Your task to perform on an android device: Open Youtube and go to "Your channel" Image 0: 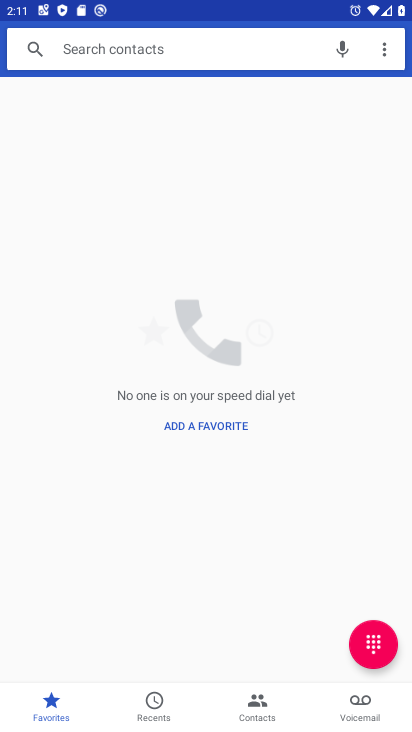
Step 0: press home button
Your task to perform on an android device: Open Youtube and go to "Your channel" Image 1: 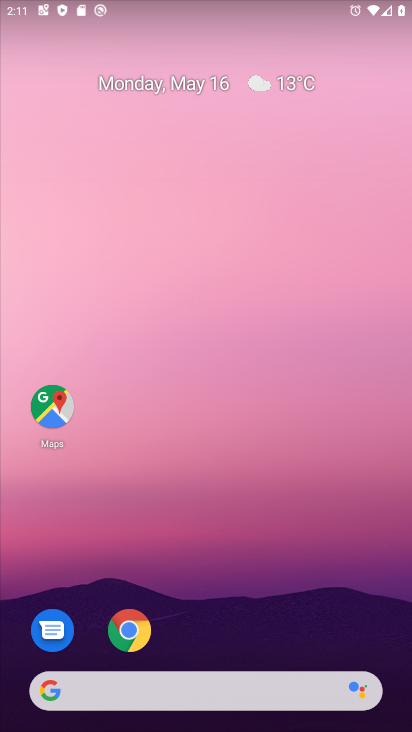
Step 1: drag from (284, 527) to (231, 268)
Your task to perform on an android device: Open Youtube and go to "Your channel" Image 2: 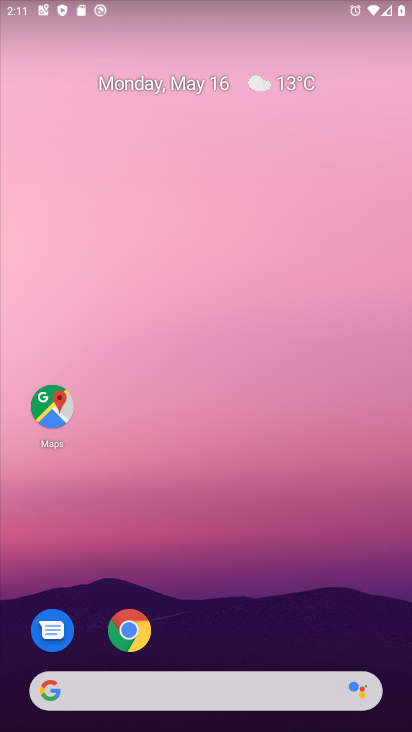
Step 2: drag from (310, 571) to (242, 132)
Your task to perform on an android device: Open Youtube and go to "Your channel" Image 3: 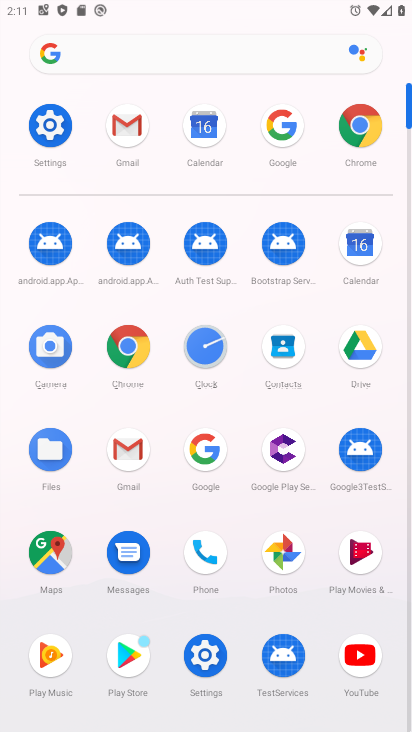
Step 3: click (361, 651)
Your task to perform on an android device: Open Youtube and go to "Your channel" Image 4: 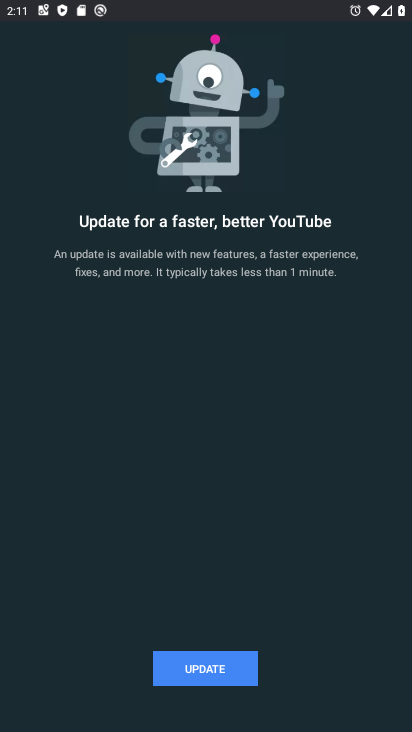
Step 4: click (221, 668)
Your task to perform on an android device: Open Youtube and go to "Your channel" Image 5: 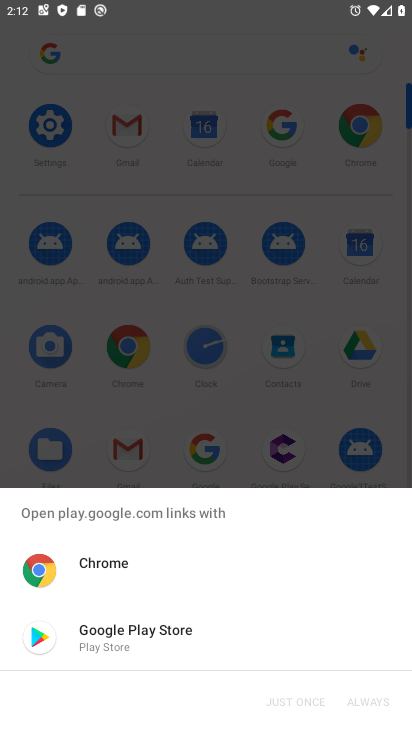
Step 5: click (224, 555)
Your task to perform on an android device: Open Youtube and go to "Your channel" Image 6: 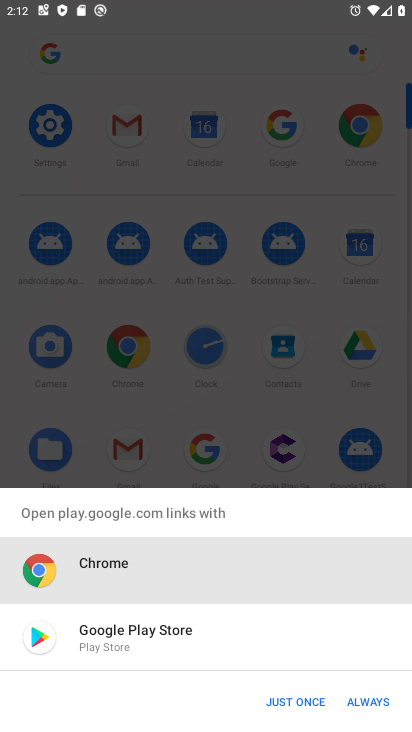
Step 6: click (363, 705)
Your task to perform on an android device: Open Youtube and go to "Your channel" Image 7: 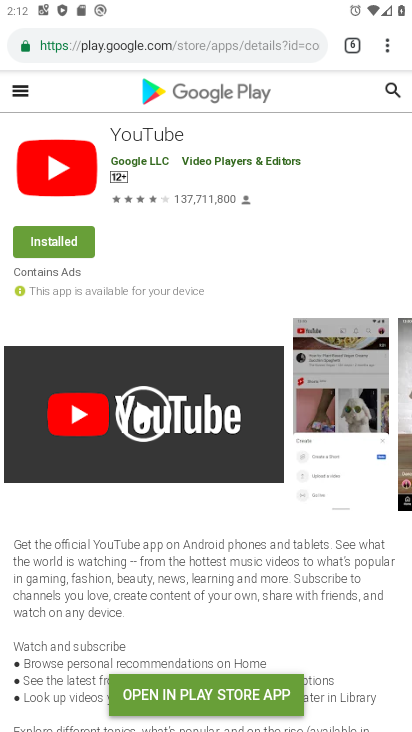
Step 7: click (71, 244)
Your task to perform on an android device: Open Youtube and go to "Your channel" Image 8: 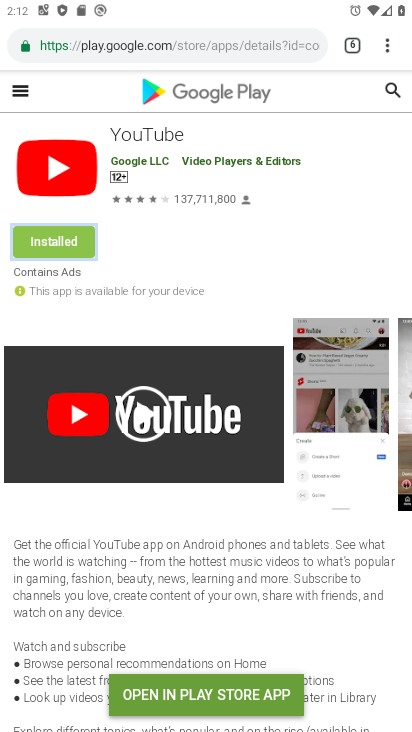
Step 8: click (71, 244)
Your task to perform on an android device: Open Youtube and go to "Your channel" Image 9: 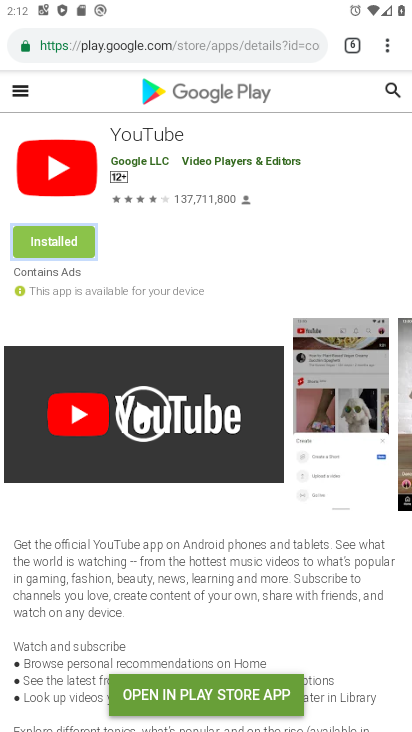
Step 9: click (48, 241)
Your task to perform on an android device: Open Youtube and go to "Your channel" Image 10: 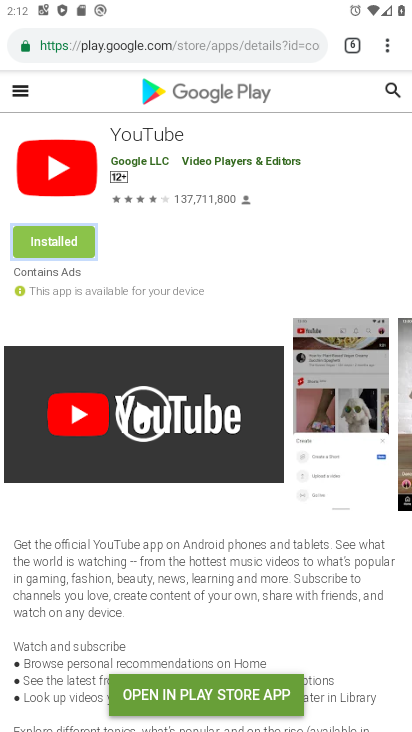
Step 10: click (221, 690)
Your task to perform on an android device: Open Youtube and go to "Your channel" Image 11: 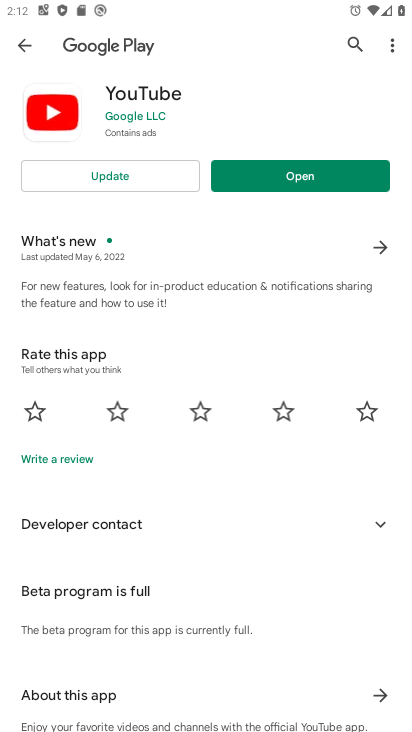
Step 11: click (115, 179)
Your task to perform on an android device: Open Youtube and go to "Your channel" Image 12: 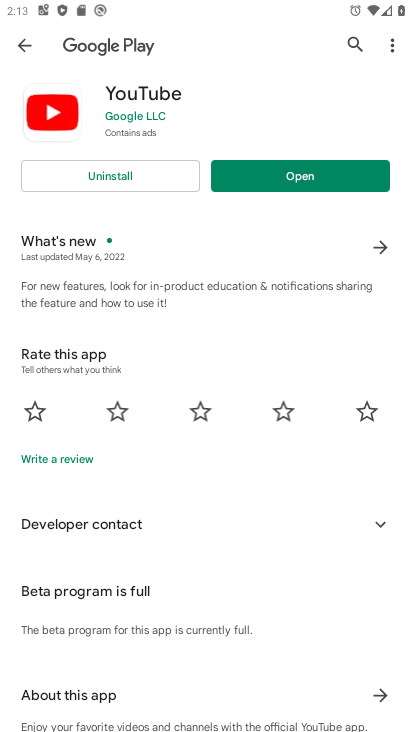
Step 12: click (280, 173)
Your task to perform on an android device: Open Youtube and go to "Your channel" Image 13: 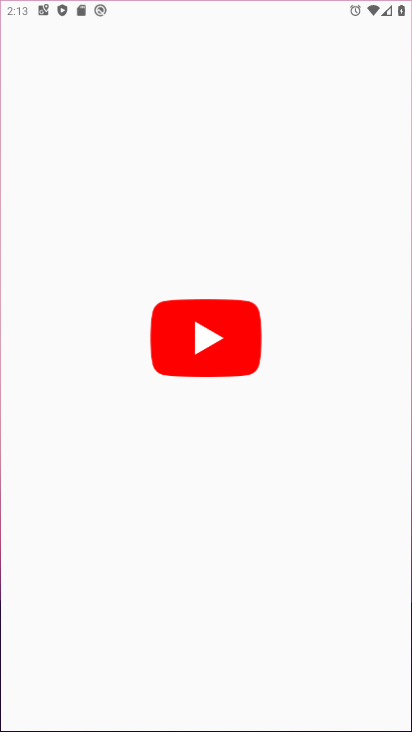
Step 13: click (280, 173)
Your task to perform on an android device: Open Youtube and go to "Your channel" Image 14: 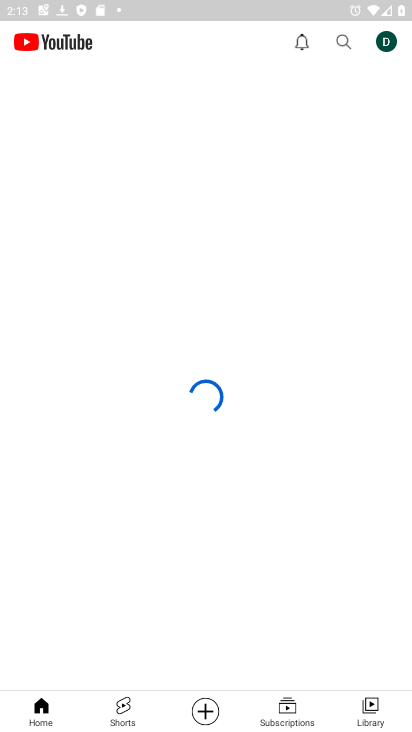
Step 14: click (389, 36)
Your task to perform on an android device: Open Youtube and go to "Your channel" Image 15: 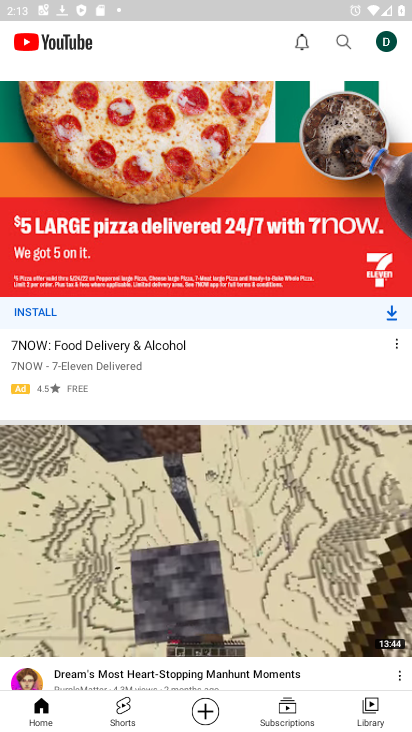
Step 15: click (389, 36)
Your task to perform on an android device: Open Youtube and go to "Your channel" Image 16: 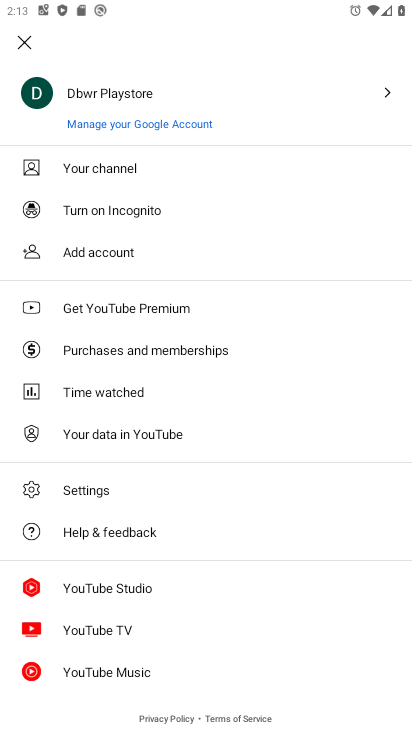
Step 16: click (193, 160)
Your task to perform on an android device: Open Youtube and go to "Your channel" Image 17: 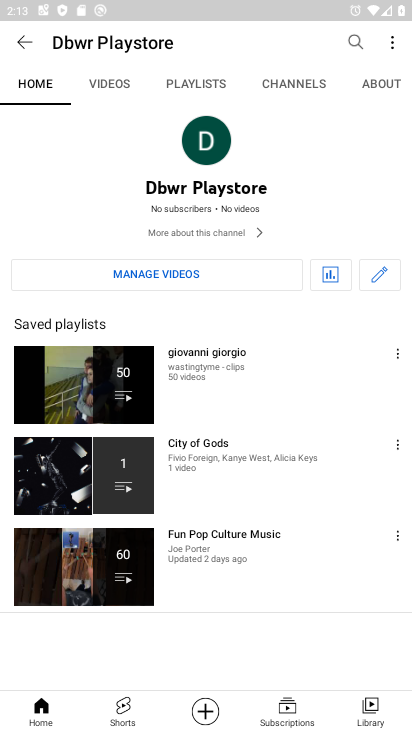
Step 17: task complete